Your task to perform on an android device: toggle data saver in the chrome app Image 0: 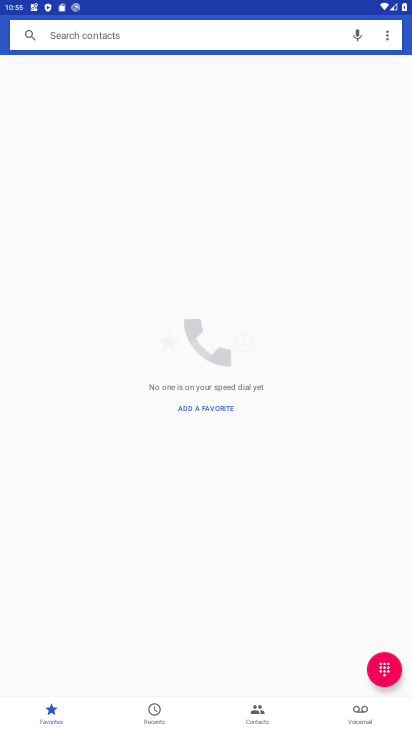
Step 0: press home button
Your task to perform on an android device: toggle data saver in the chrome app Image 1: 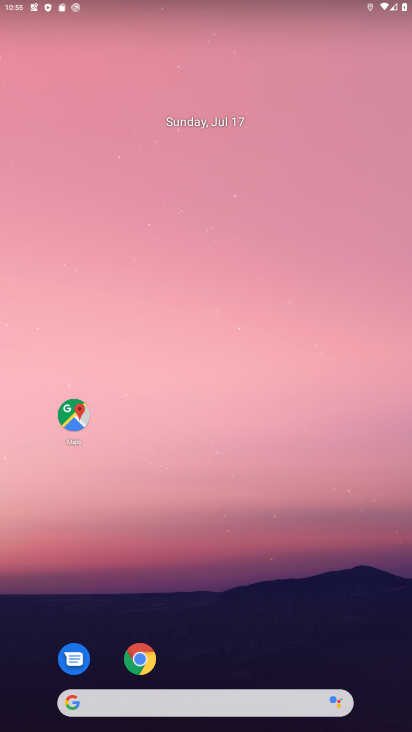
Step 1: drag from (287, 659) to (261, 30)
Your task to perform on an android device: toggle data saver in the chrome app Image 2: 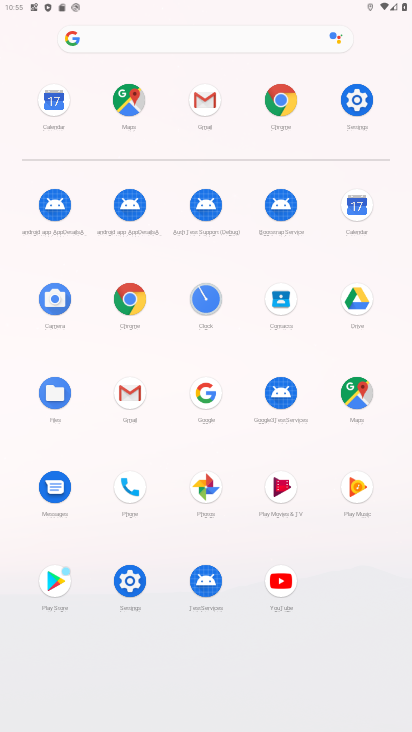
Step 2: click (129, 298)
Your task to perform on an android device: toggle data saver in the chrome app Image 3: 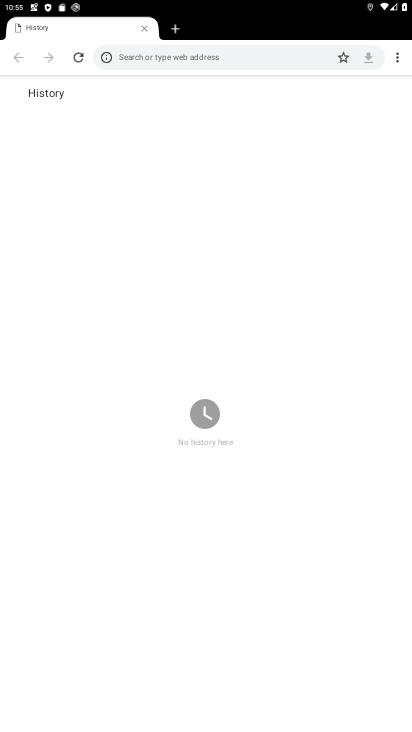
Step 3: drag from (397, 56) to (281, 298)
Your task to perform on an android device: toggle data saver in the chrome app Image 4: 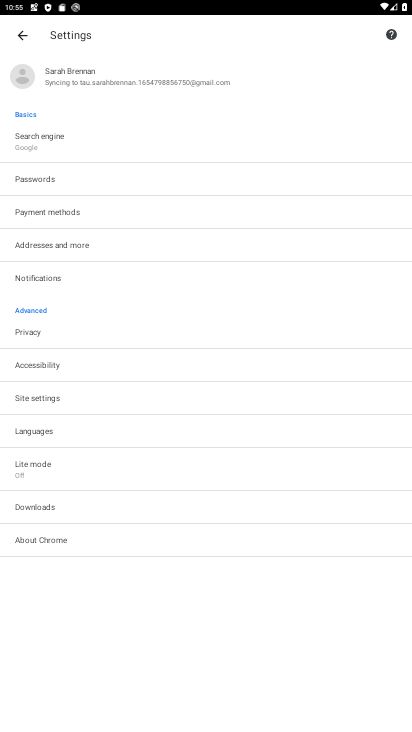
Step 4: click (67, 469)
Your task to perform on an android device: toggle data saver in the chrome app Image 5: 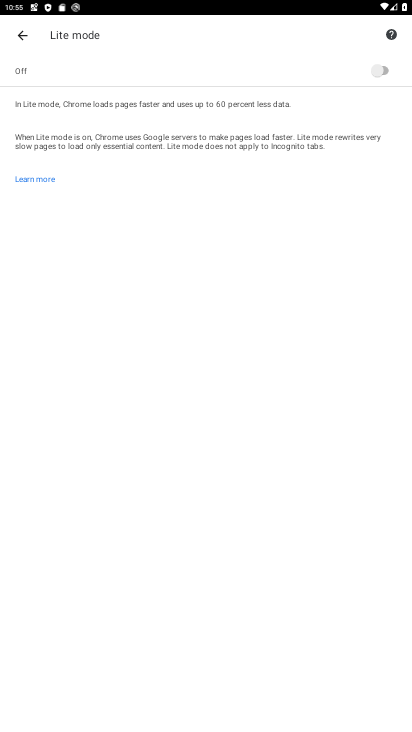
Step 5: click (386, 65)
Your task to perform on an android device: toggle data saver in the chrome app Image 6: 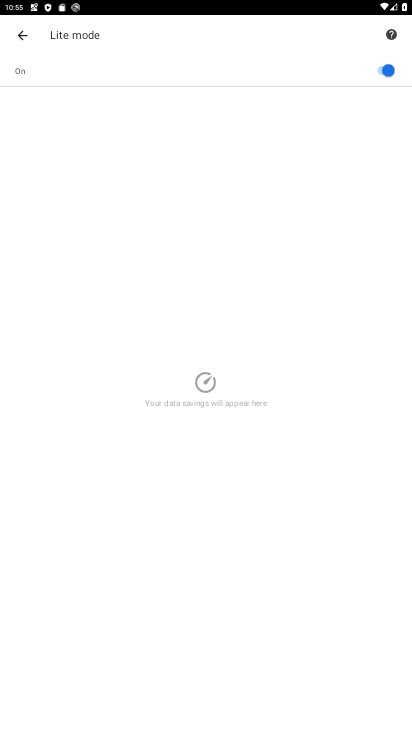
Step 6: task complete